Your task to perform on an android device: What's the weather? Image 0: 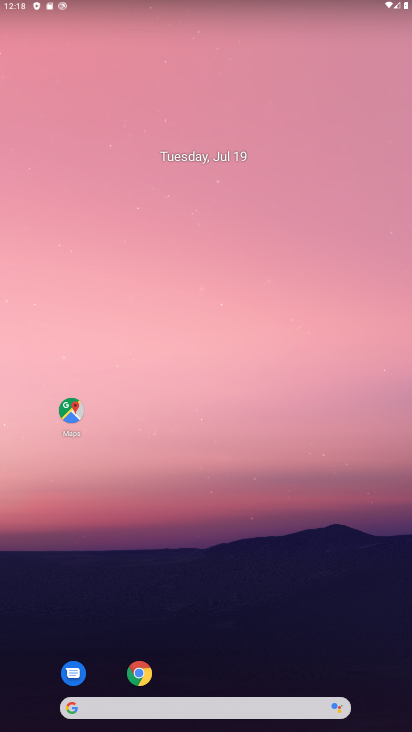
Step 0: press home button
Your task to perform on an android device: What's the weather? Image 1: 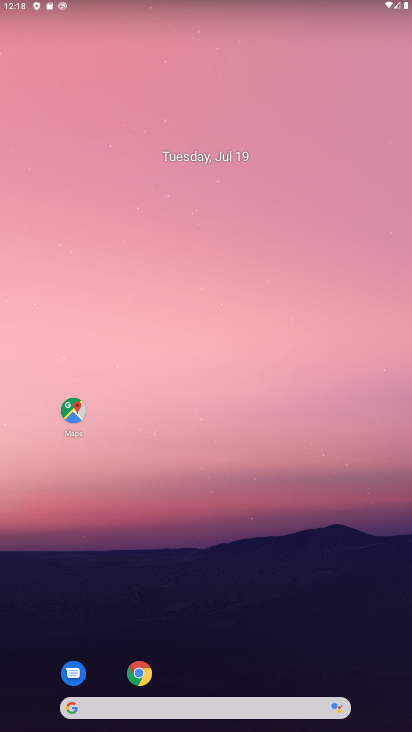
Step 1: drag from (263, 661) to (221, 171)
Your task to perform on an android device: What's the weather? Image 2: 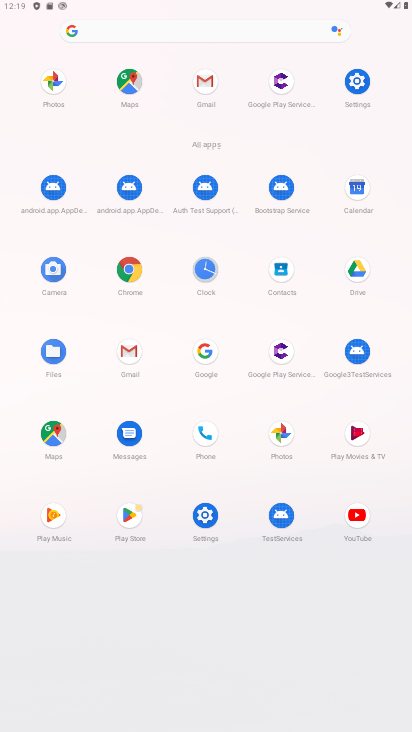
Step 2: click (131, 278)
Your task to perform on an android device: What's the weather? Image 3: 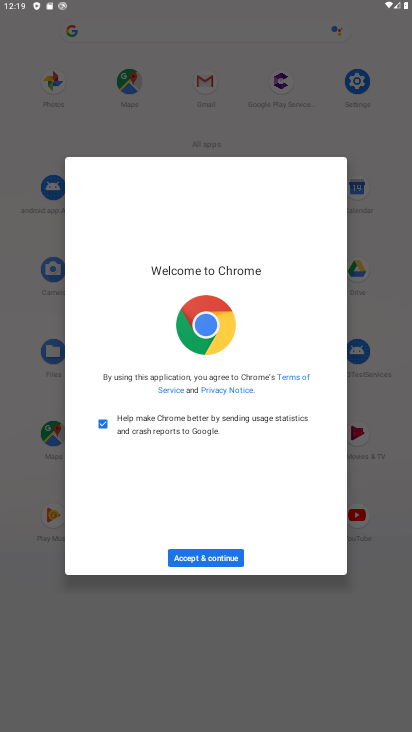
Step 3: click (230, 550)
Your task to perform on an android device: What's the weather? Image 4: 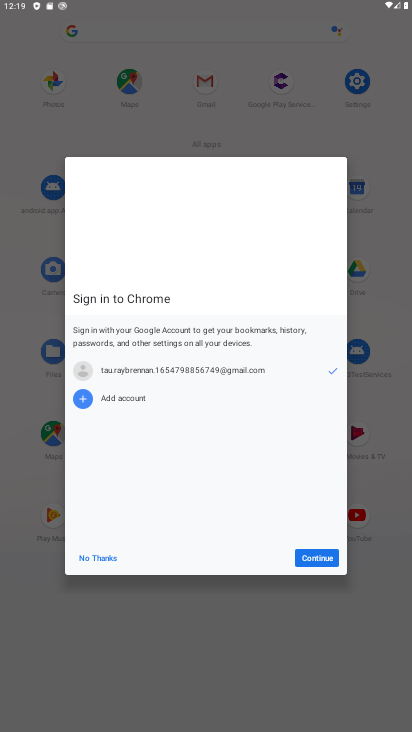
Step 4: click (323, 561)
Your task to perform on an android device: What's the weather? Image 5: 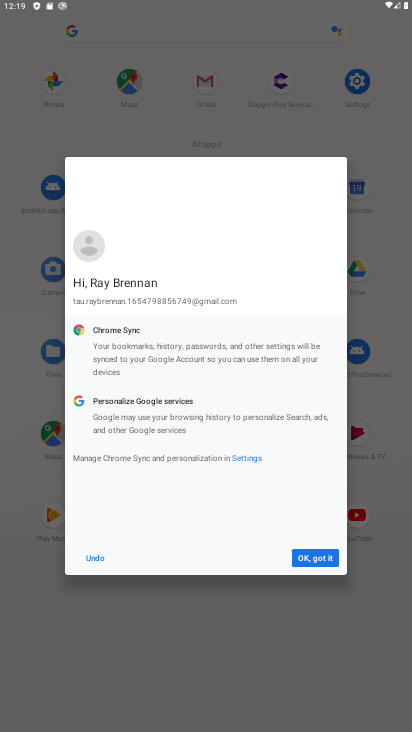
Step 5: click (322, 561)
Your task to perform on an android device: What's the weather? Image 6: 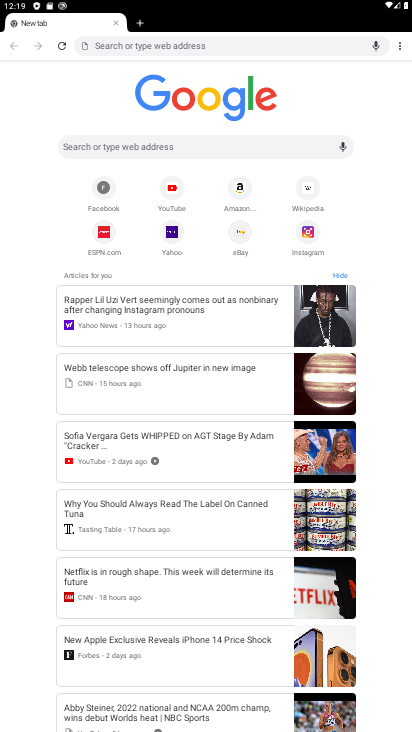
Step 6: click (267, 151)
Your task to perform on an android device: What's the weather? Image 7: 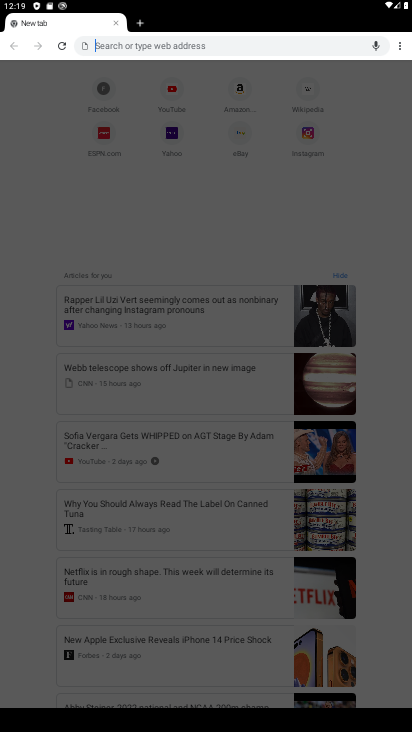
Step 7: type "What's the weather?"
Your task to perform on an android device: What's the weather? Image 8: 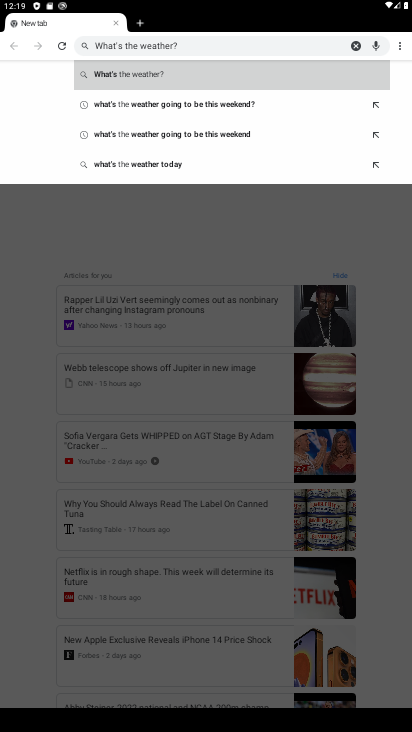
Step 8: click (142, 71)
Your task to perform on an android device: What's the weather? Image 9: 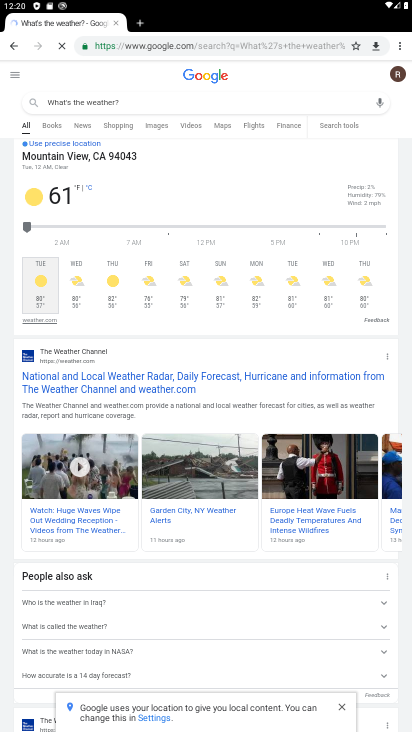
Step 9: task complete